Your task to perform on an android device: toggle sleep mode Image 0: 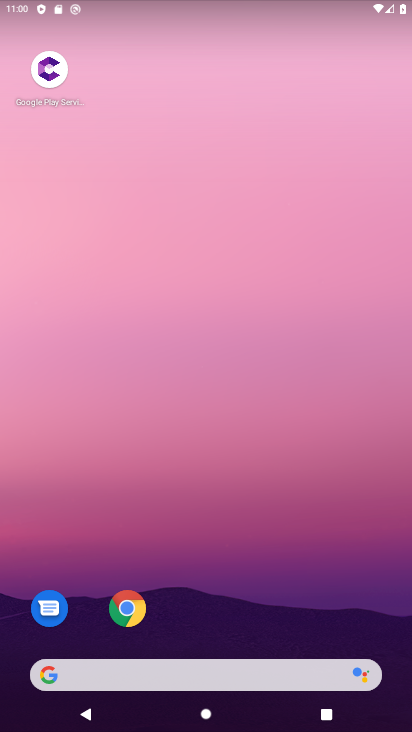
Step 0: drag from (231, 549) to (253, 238)
Your task to perform on an android device: toggle sleep mode Image 1: 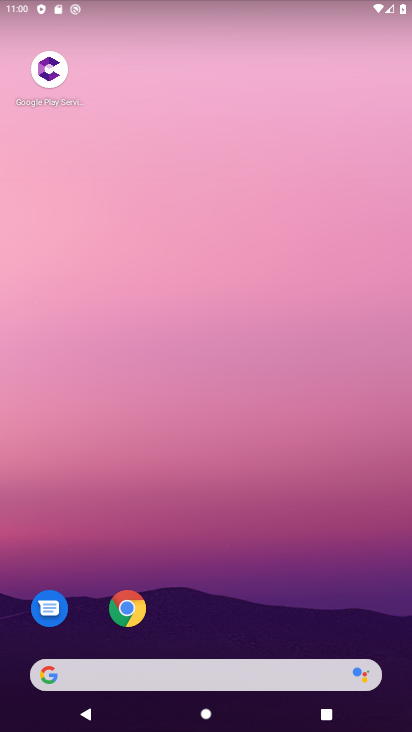
Step 1: drag from (276, 648) to (276, 182)
Your task to perform on an android device: toggle sleep mode Image 2: 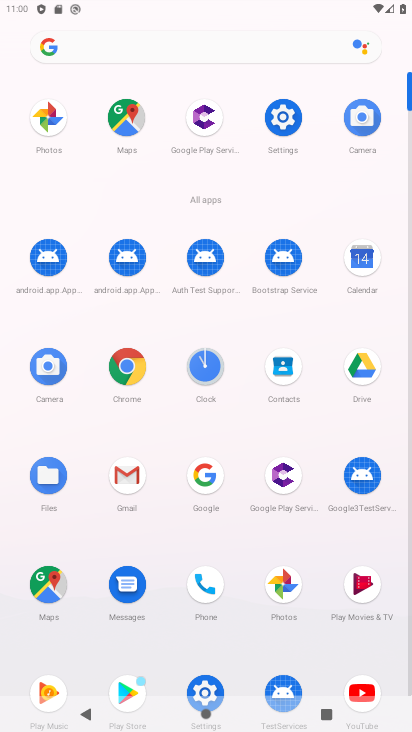
Step 2: click (272, 117)
Your task to perform on an android device: toggle sleep mode Image 3: 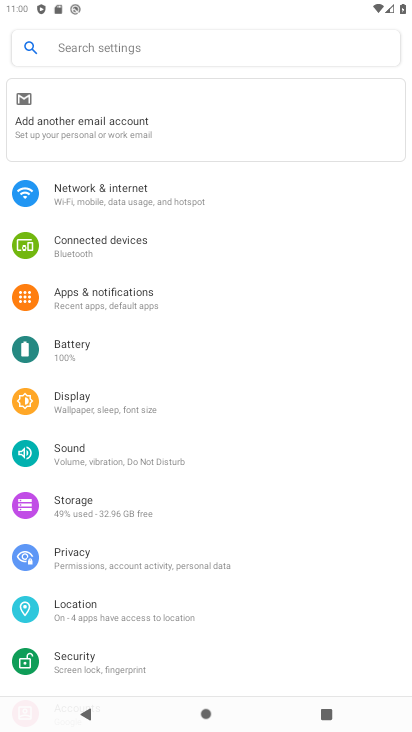
Step 3: task complete